Your task to perform on an android device: move a message to another label in the gmail app Image 0: 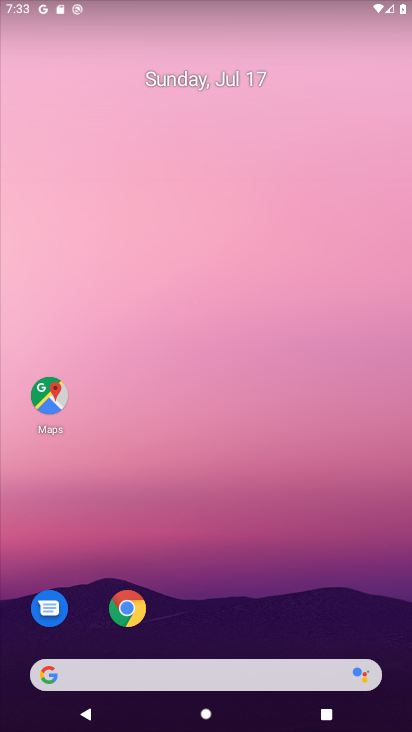
Step 0: drag from (149, 618) to (256, 97)
Your task to perform on an android device: move a message to another label in the gmail app Image 1: 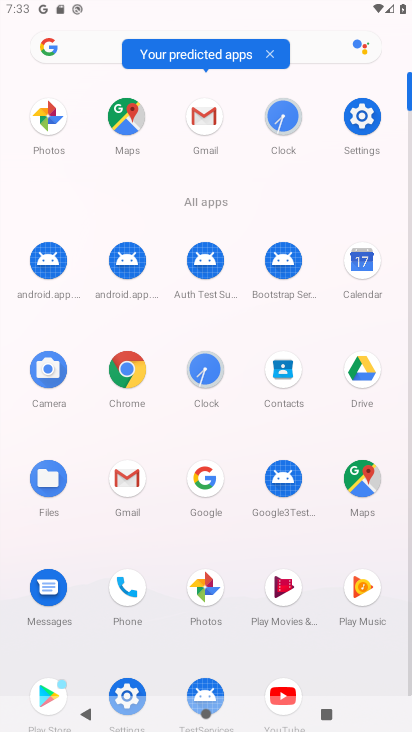
Step 1: click (116, 474)
Your task to perform on an android device: move a message to another label in the gmail app Image 2: 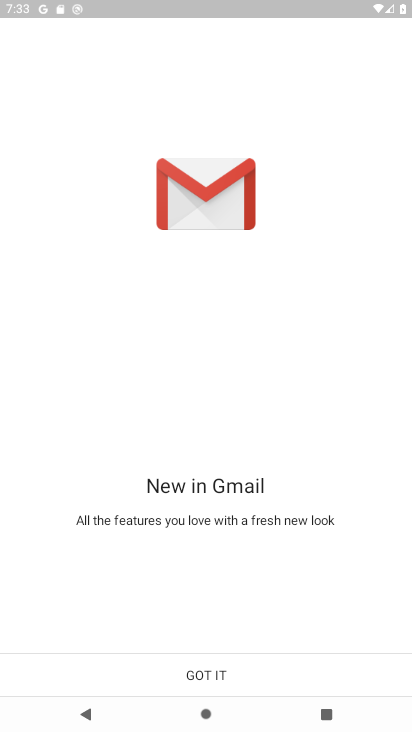
Step 2: click (218, 671)
Your task to perform on an android device: move a message to another label in the gmail app Image 3: 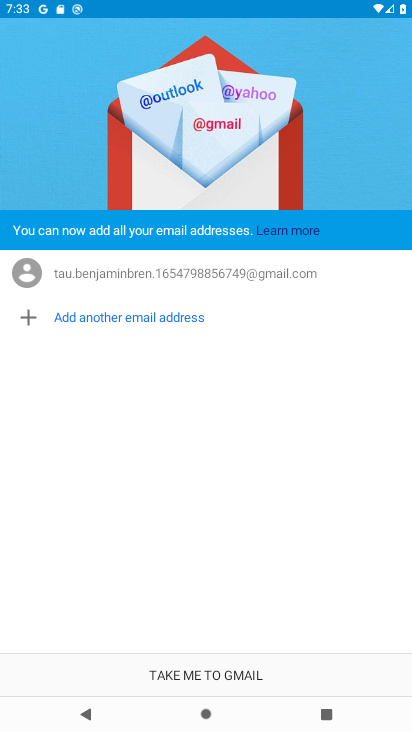
Step 3: click (218, 671)
Your task to perform on an android device: move a message to another label in the gmail app Image 4: 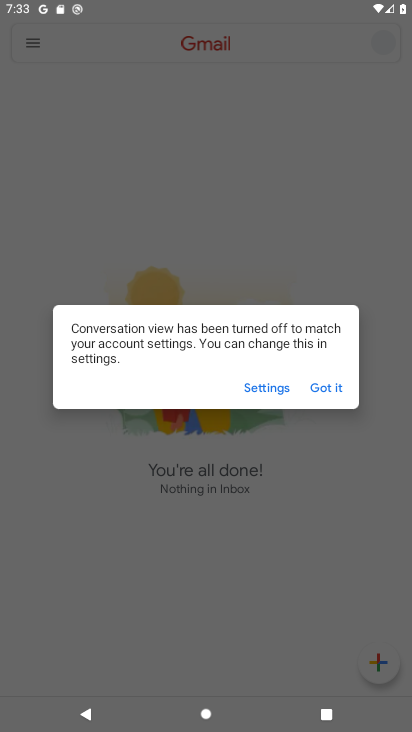
Step 4: click (350, 389)
Your task to perform on an android device: move a message to another label in the gmail app Image 5: 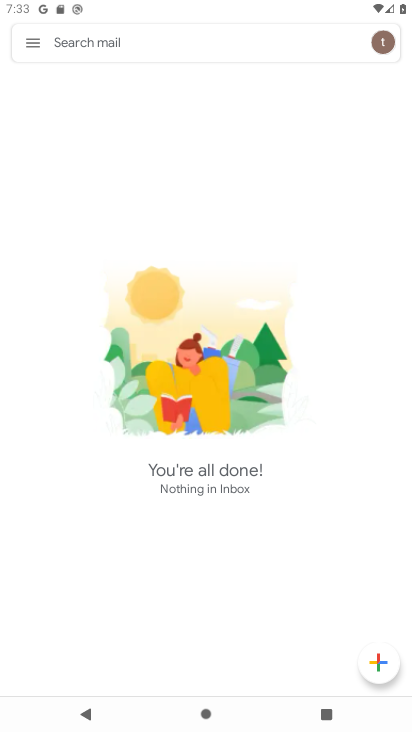
Step 5: task complete